Your task to perform on an android device: Open eBay Image 0: 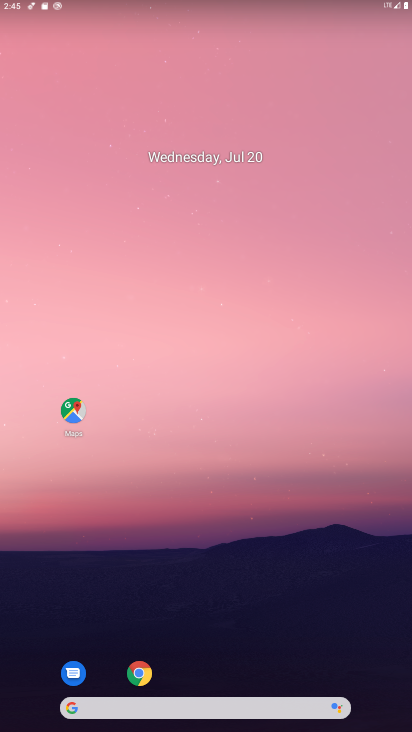
Step 0: click (143, 669)
Your task to perform on an android device: Open eBay Image 1: 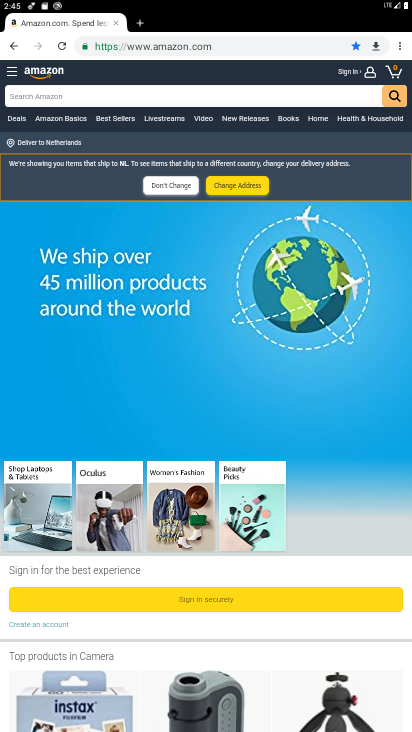
Step 1: click (159, 42)
Your task to perform on an android device: Open eBay Image 2: 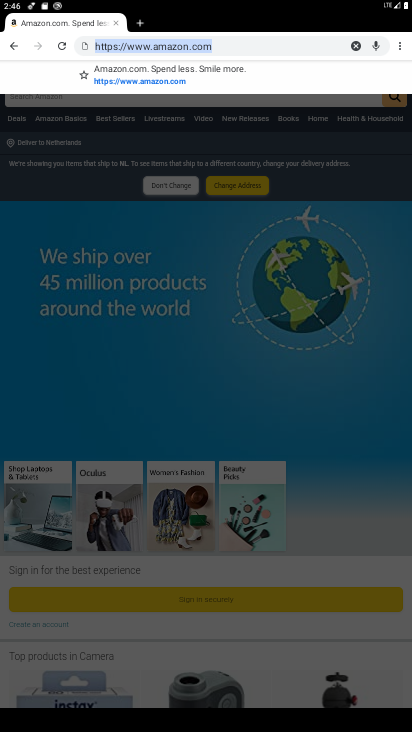
Step 2: type "eBay"
Your task to perform on an android device: Open eBay Image 3: 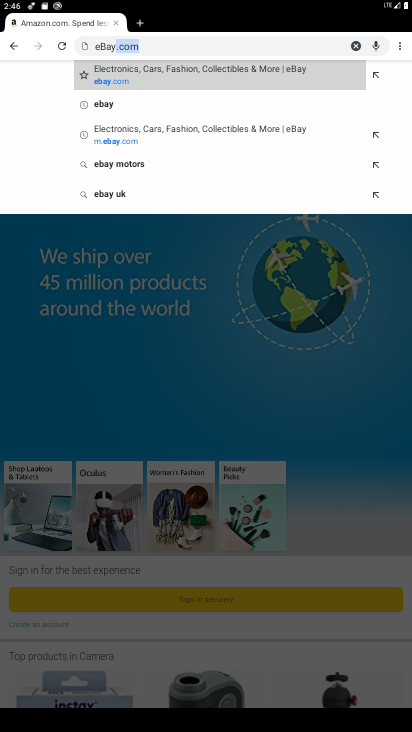
Step 3: click (159, 77)
Your task to perform on an android device: Open eBay Image 4: 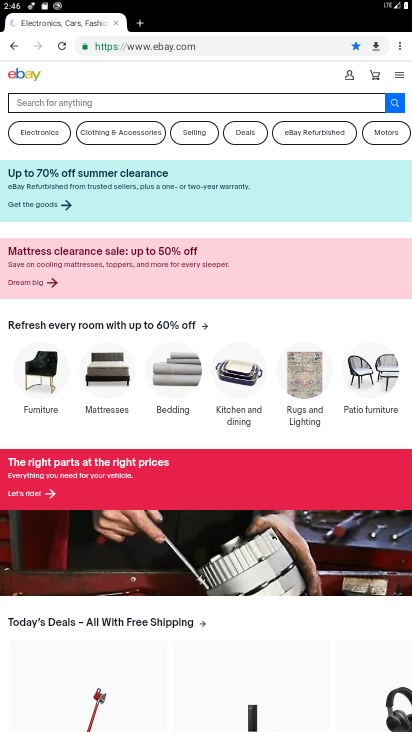
Step 4: task complete